Your task to perform on an android device: What's the news in Ecuador? Image 0: 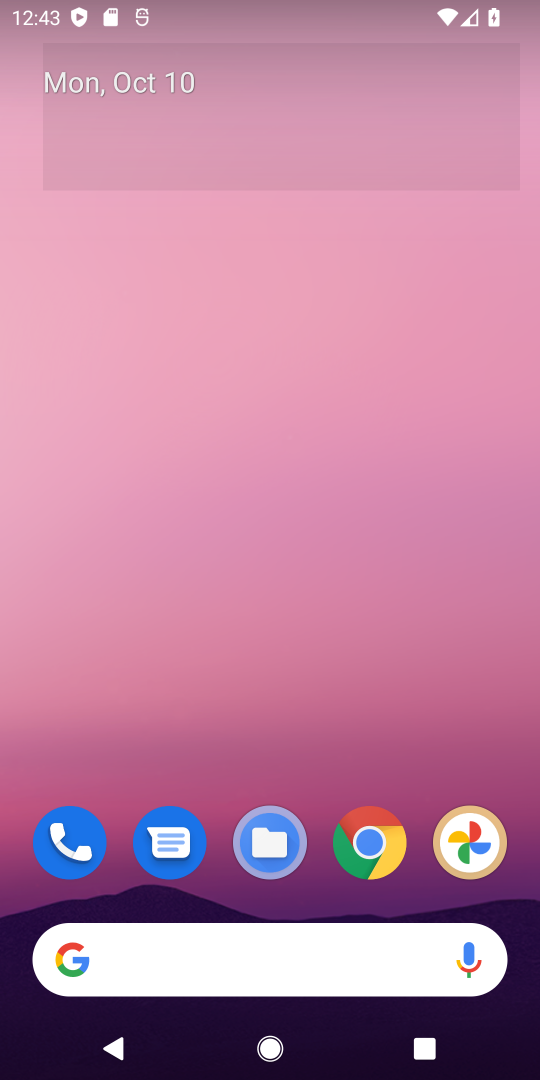
Step 0: click (368, 839)
Your task to perform on an android device: What's the news in Ecuador? Image 1: 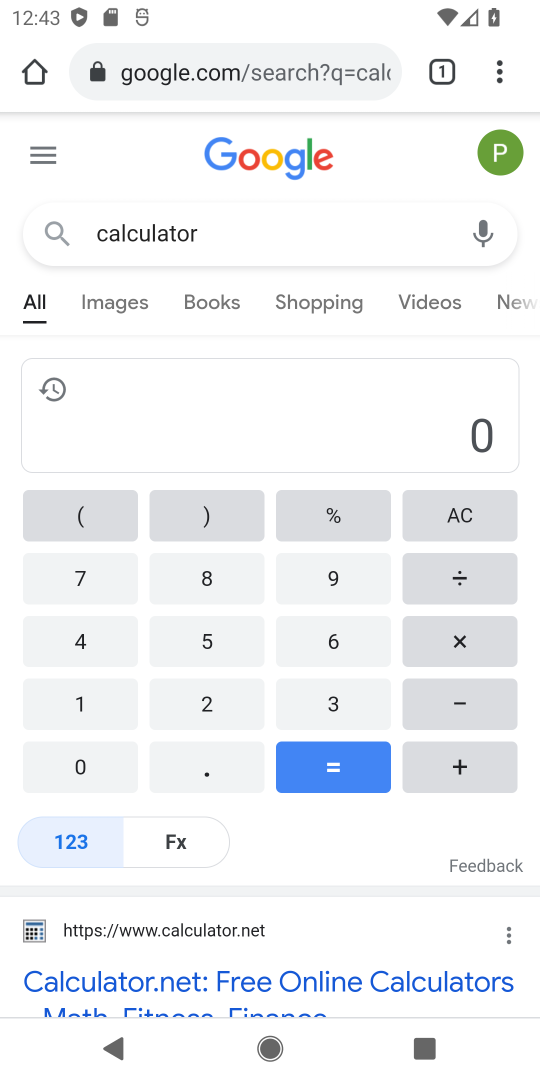
Step 1: click (255, 69)
Your task to perform on an android device: What's the news in Ecuador? Image 2: 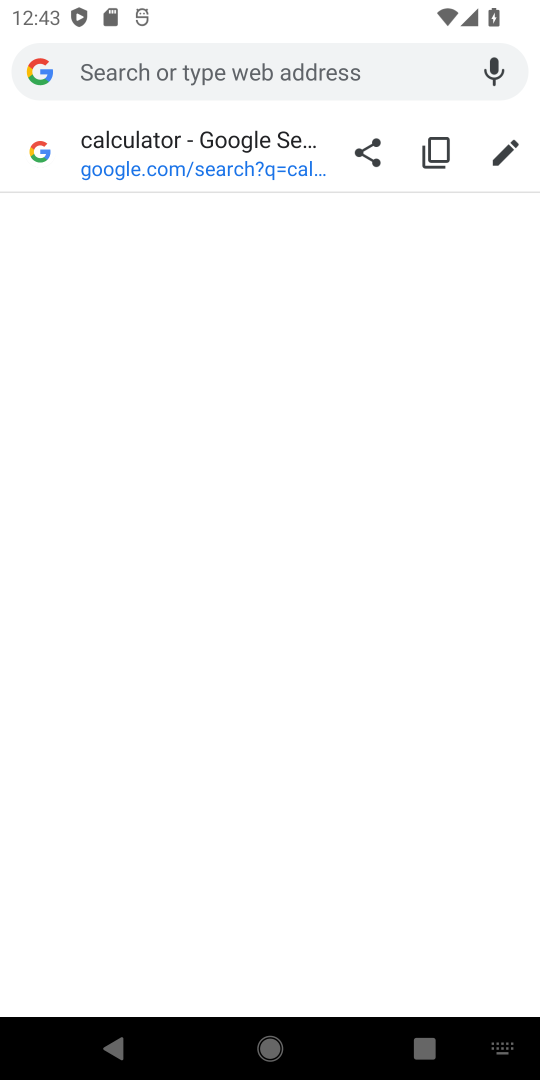
Step 2: type "news in ecuador"
Your task to perform on an android device: What's the news in Ecuador? Image 3: 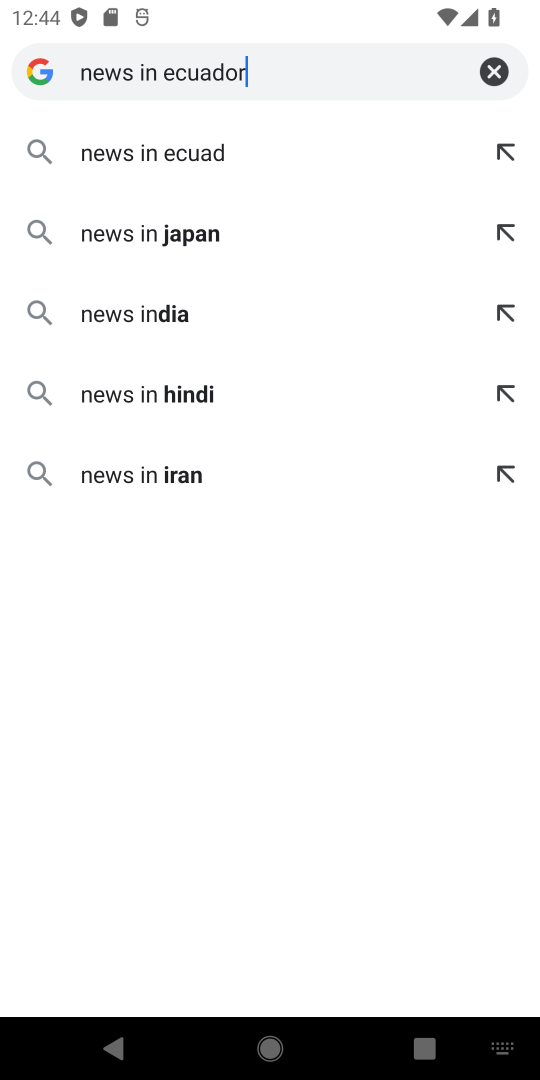
Step 3: type ""
Your task to perform on an android device: What's the news in Ecuador? Image 4: 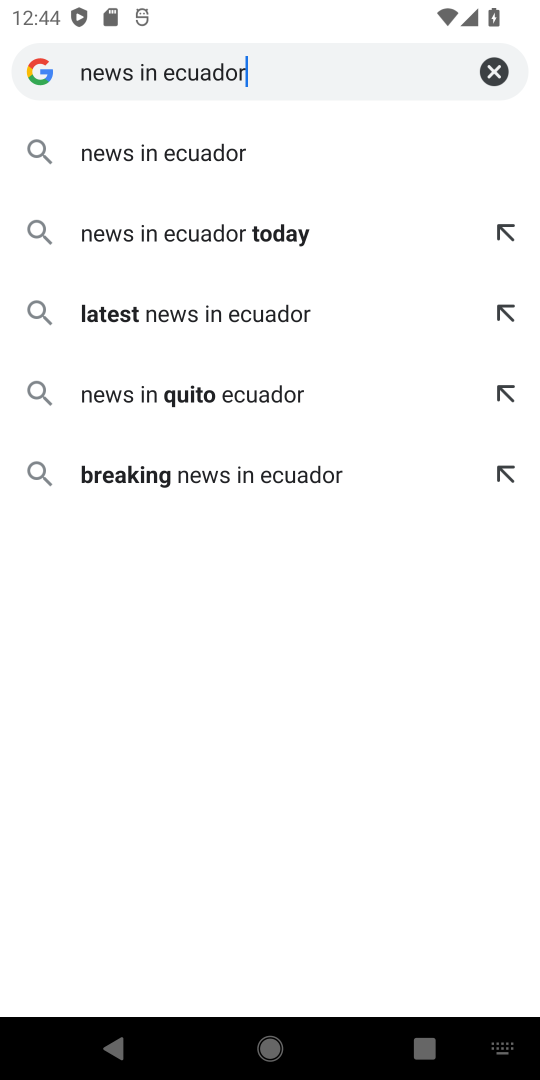
Step 4: press enter
Your task to perform on an android device: What's the news in Ecuador? Image 5: 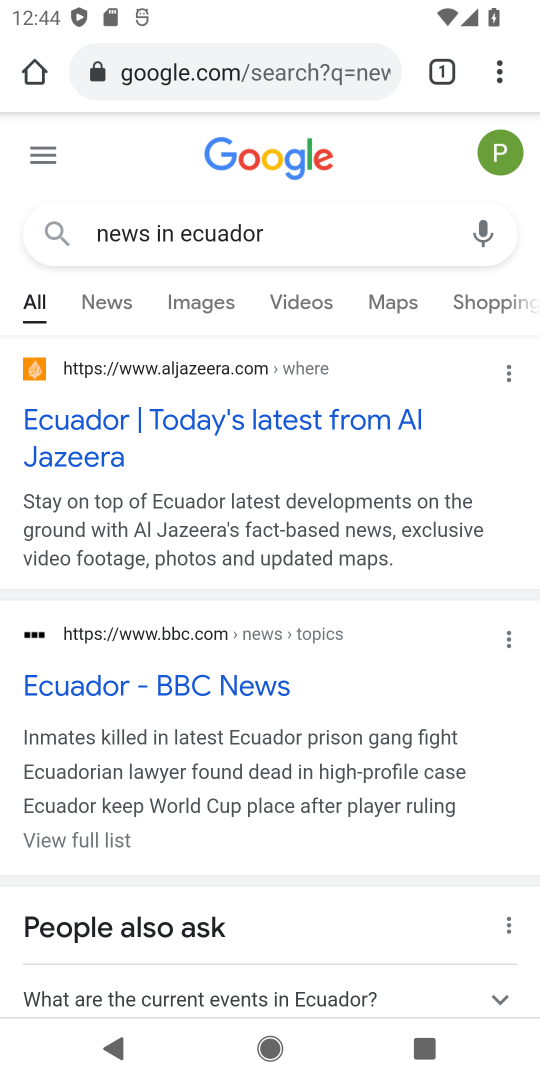
Step 5: click (119, 302)
Your task to perform on an android device: What's the news in Ecuador? Image 6: 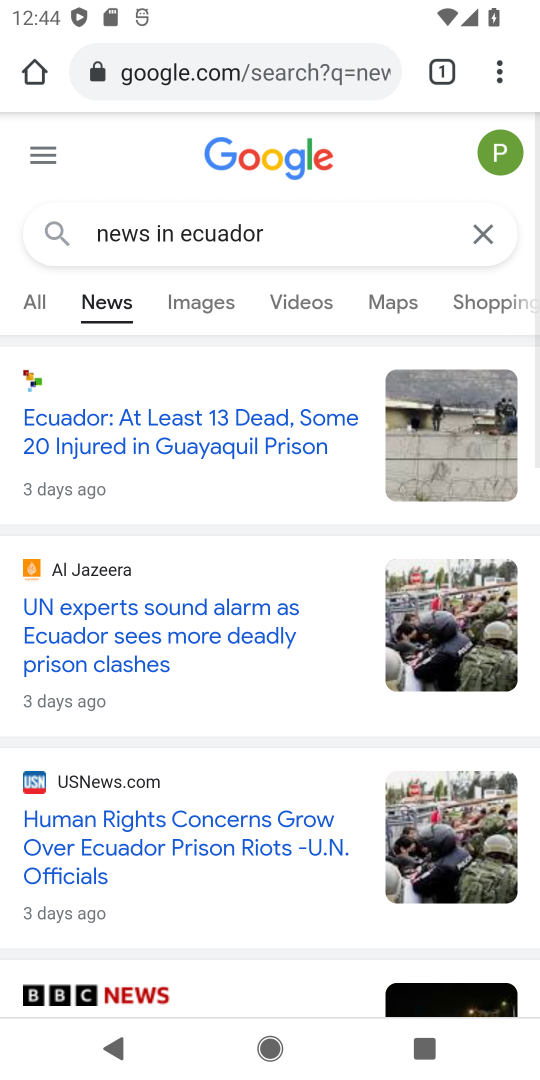
Step 6: task complete